Your task to perform on an android device: turn on bluetooth scan Image 0: 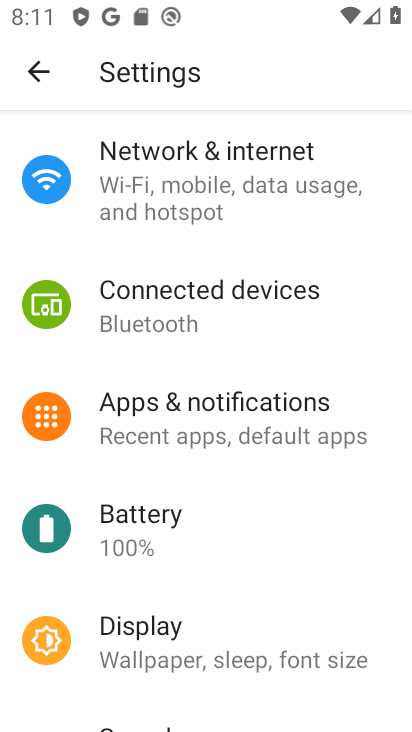
Step 0: press home button
Your task to perform on an android device: turn on bluetooth scan Image 1: 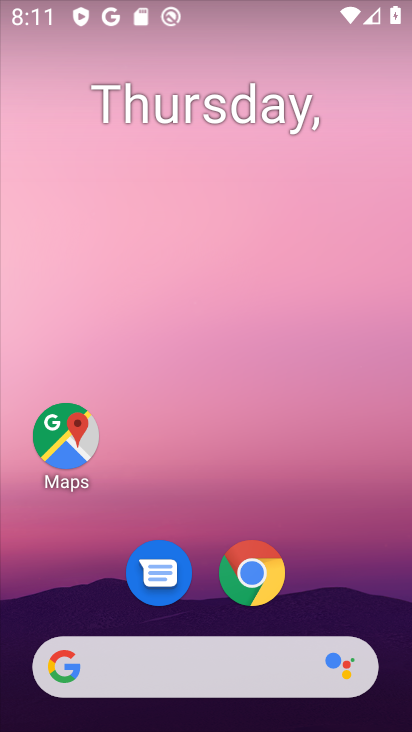
Step 1: drag from (348, 549) to (343, 203)
Your task to perform on an android device: turn on bluetooth scan Image 2: 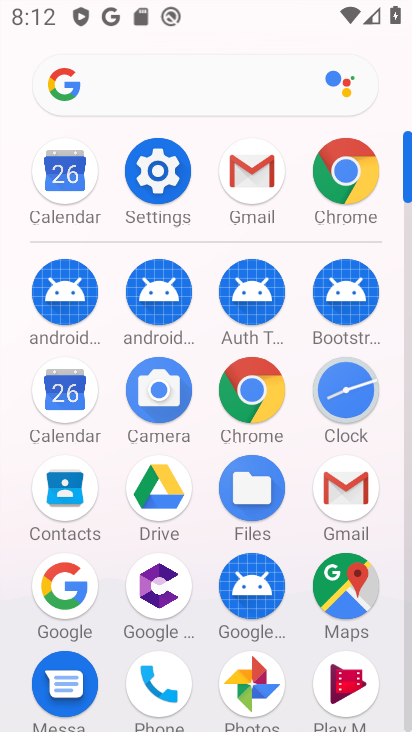
Step 2: click (150, 195)
Your task to perform on an android device: turn on bluetooth scan Image 3: 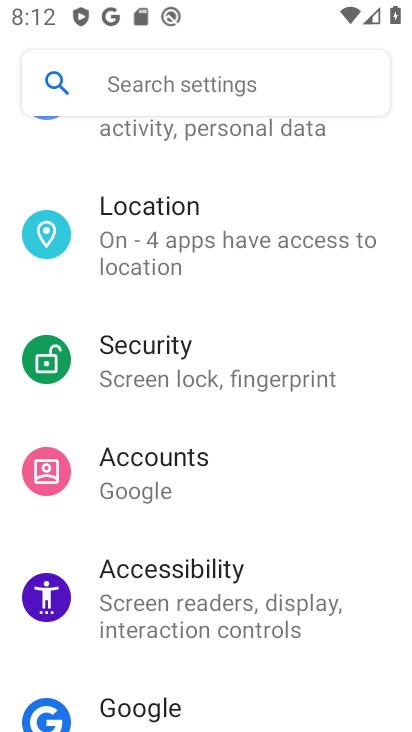
Step 3: drag from (207, 655) to (230, 278)
Your task to perform on an android device: turn on bluetooth scan Image 4: 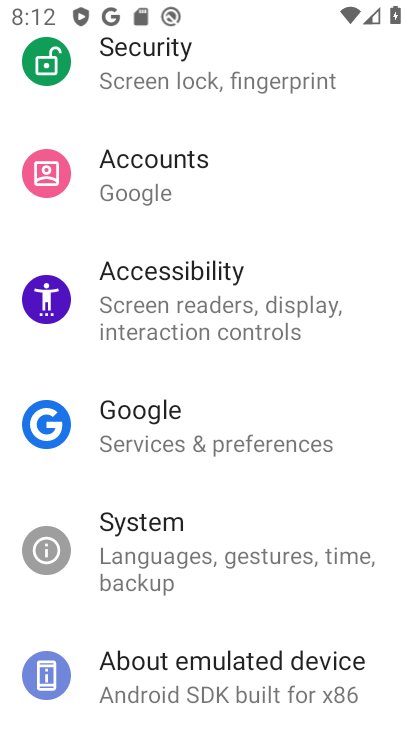
Step 4: drag from (256, 607) to (281, 302)
Your task to perform on an android device: turn on bluetooth scan Image 5: 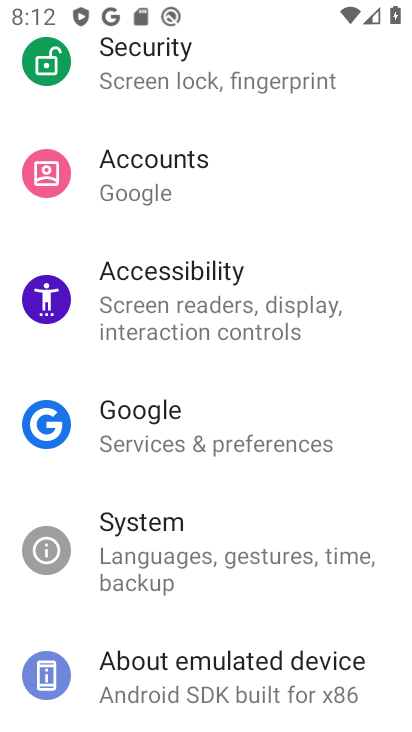
Step 5: drag from (283, 164) to (246, 647)
Your task to perform on an android device: turn on bluetooth scan Image 6: 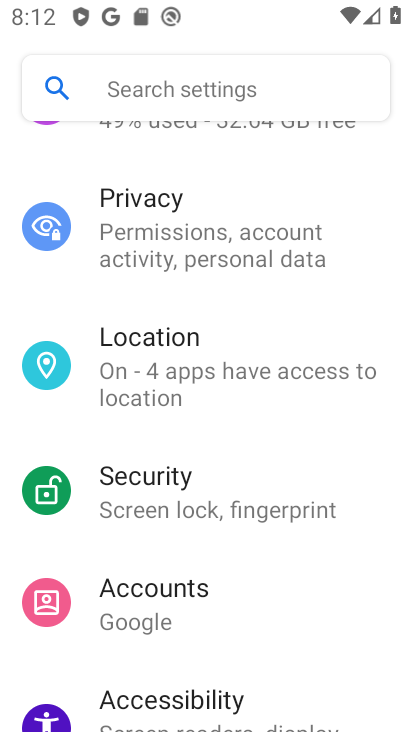
Step 6: drag from (272, 217) to (263, 640)
Your task to perform on an android device: turn on bluetooth scan Image 7: 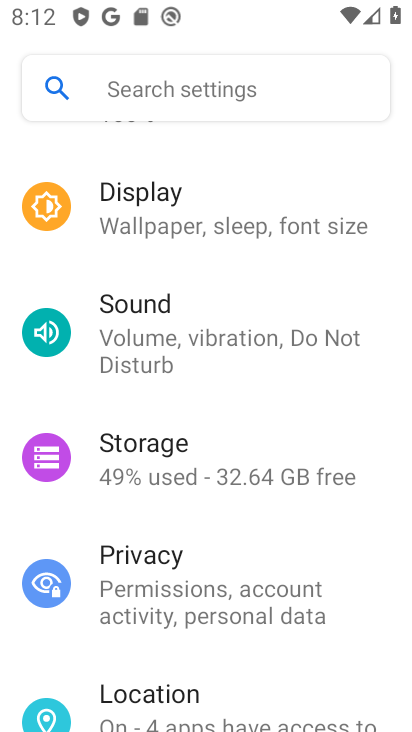
Step 7: drag from (274, 279) to (283, 604)
Your task to perform on an android device: turn on bluetooth scan Image 8: 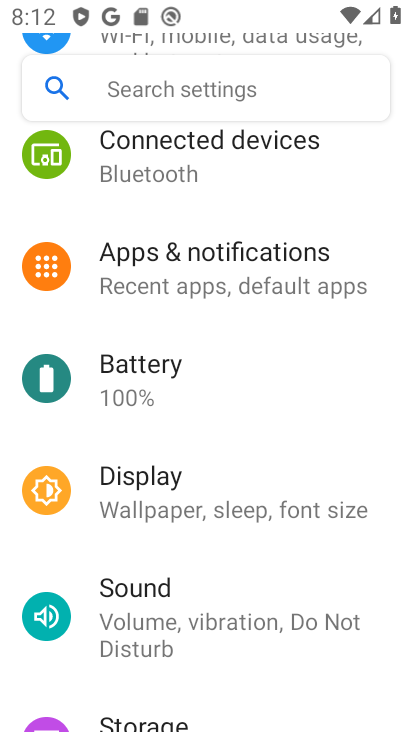
Step 8: click (247, 210)
Your task to perform on an android device: turn on bluetooth scan Image 9: 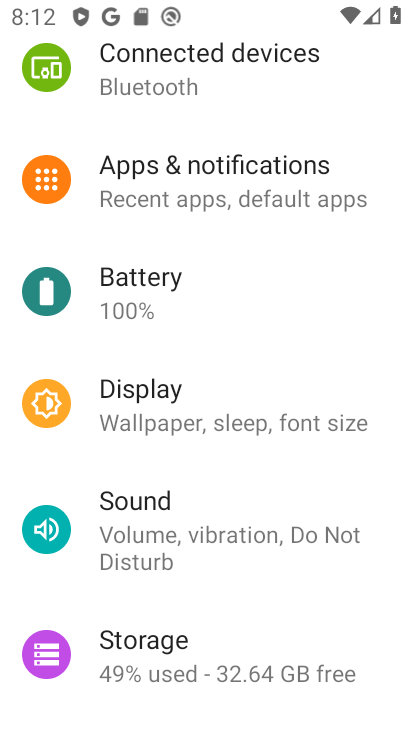
Step 9: drag from (246, 600) to (277, 245)
Your task to perform on an android device: turn on bluetooth scan Image 10: 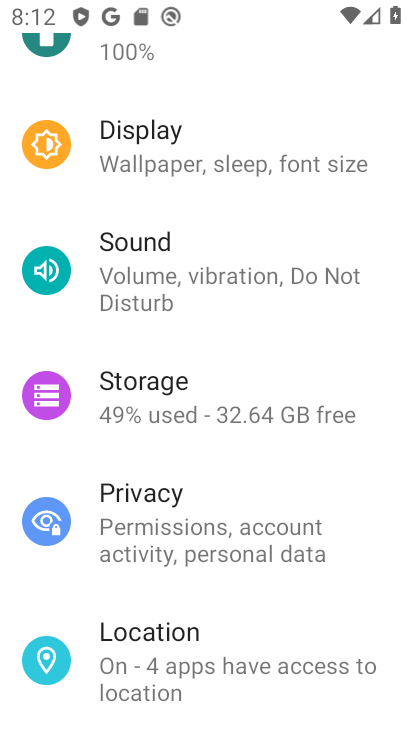
Step 10: click (207, 632)
Your task to perform on an android device: turn on bluetooth scan Image 11: 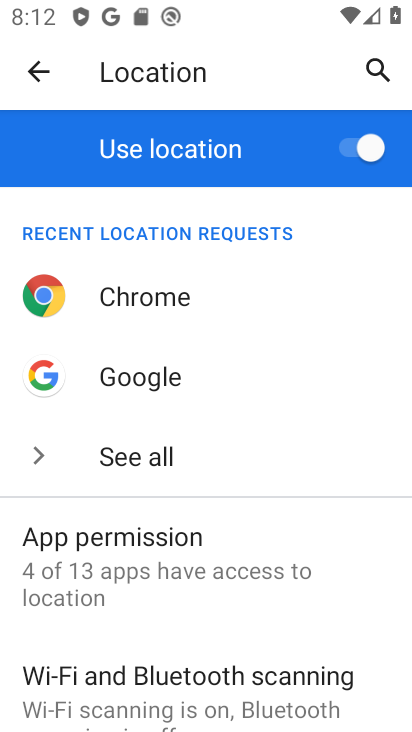
Step 11: drag from (293, 649) to (281, 287)
Your task to perform on an android device: turn on bluetooth scan Image 12: 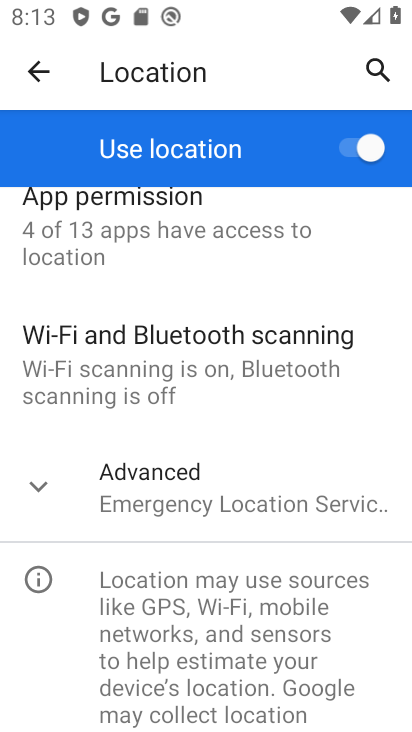
Step 12: click (267, 378)
Your task to perform on an android device: turn on bluetooth scan Image 13: 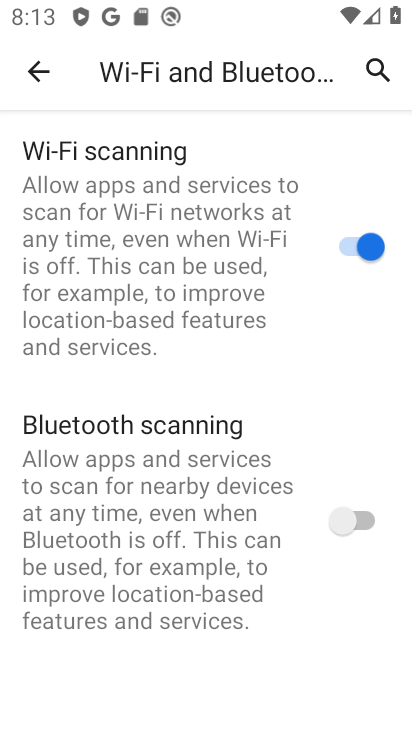
Step 13: click (360, 531)
Your task to perform on an android device: turn on bluetooth scan Image 14: 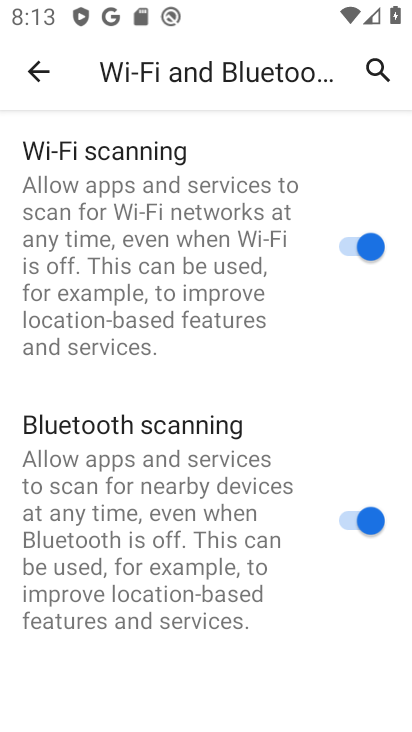
Step 14: task complete